Your task to perform on an android device: Add asus zenbook to the cart on ebay Image 0: 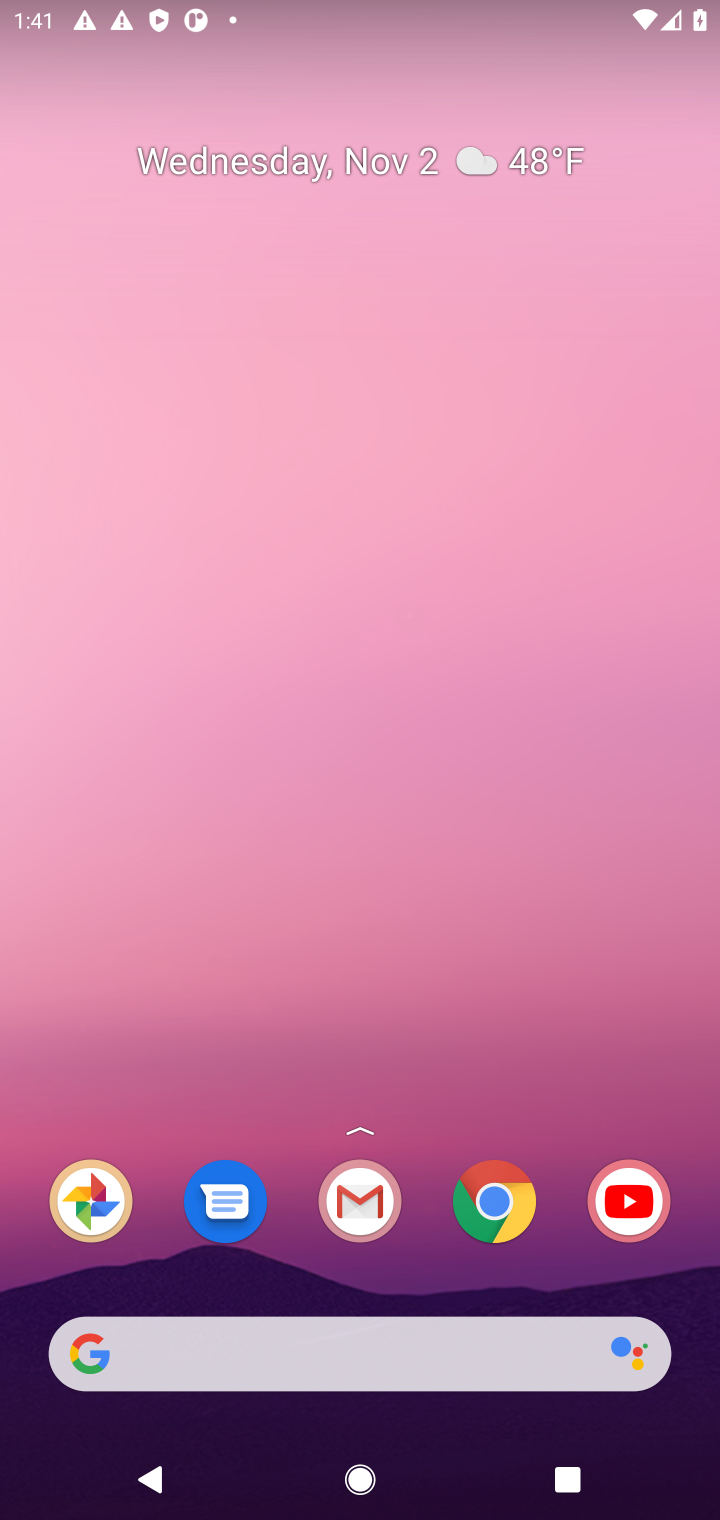
Step 0: click (491, 1215)
Your task to perform on an android device: Add asus zenbook to the cart on ebay Image 1: 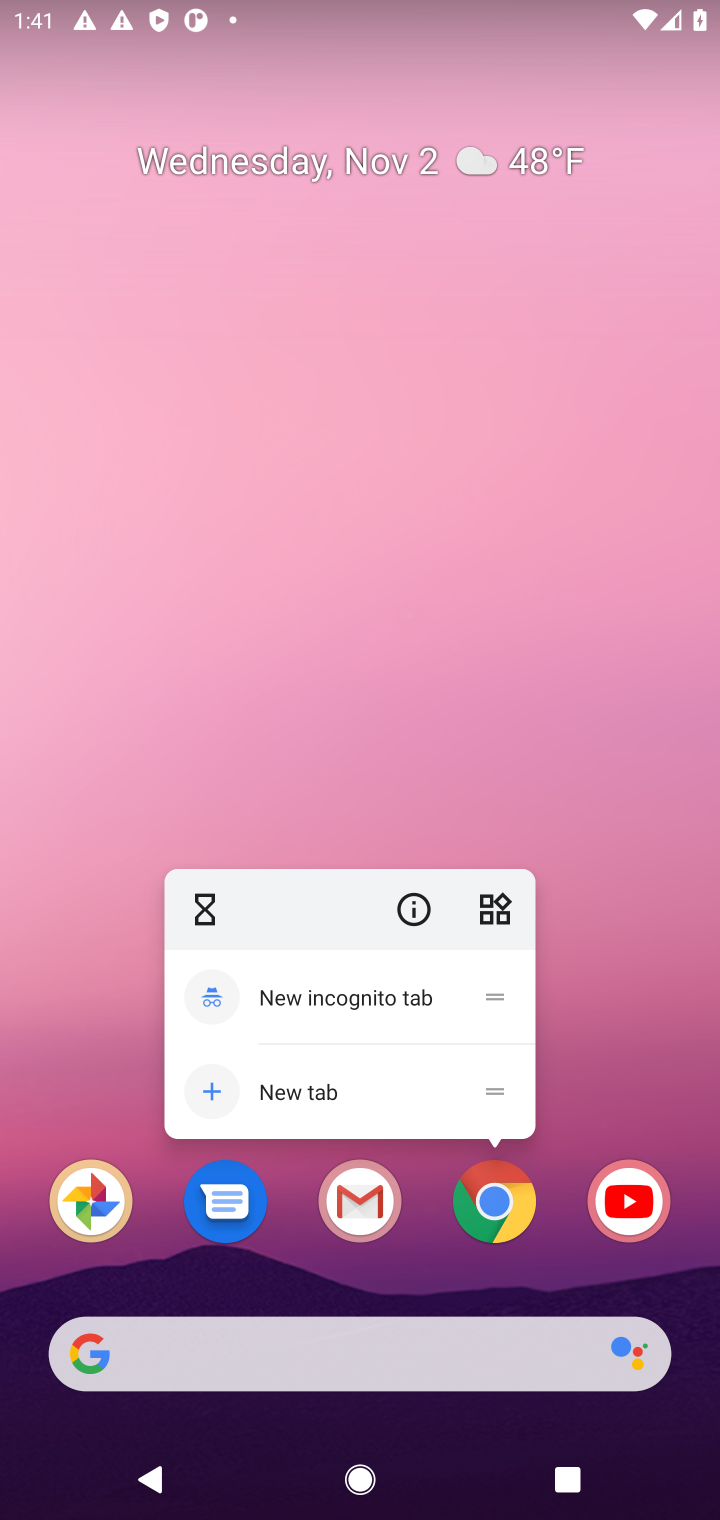
Step 1: click (491, 1215)
Your task to perform on an android device: Add asus zenbook to the cart on ebay Image 2: 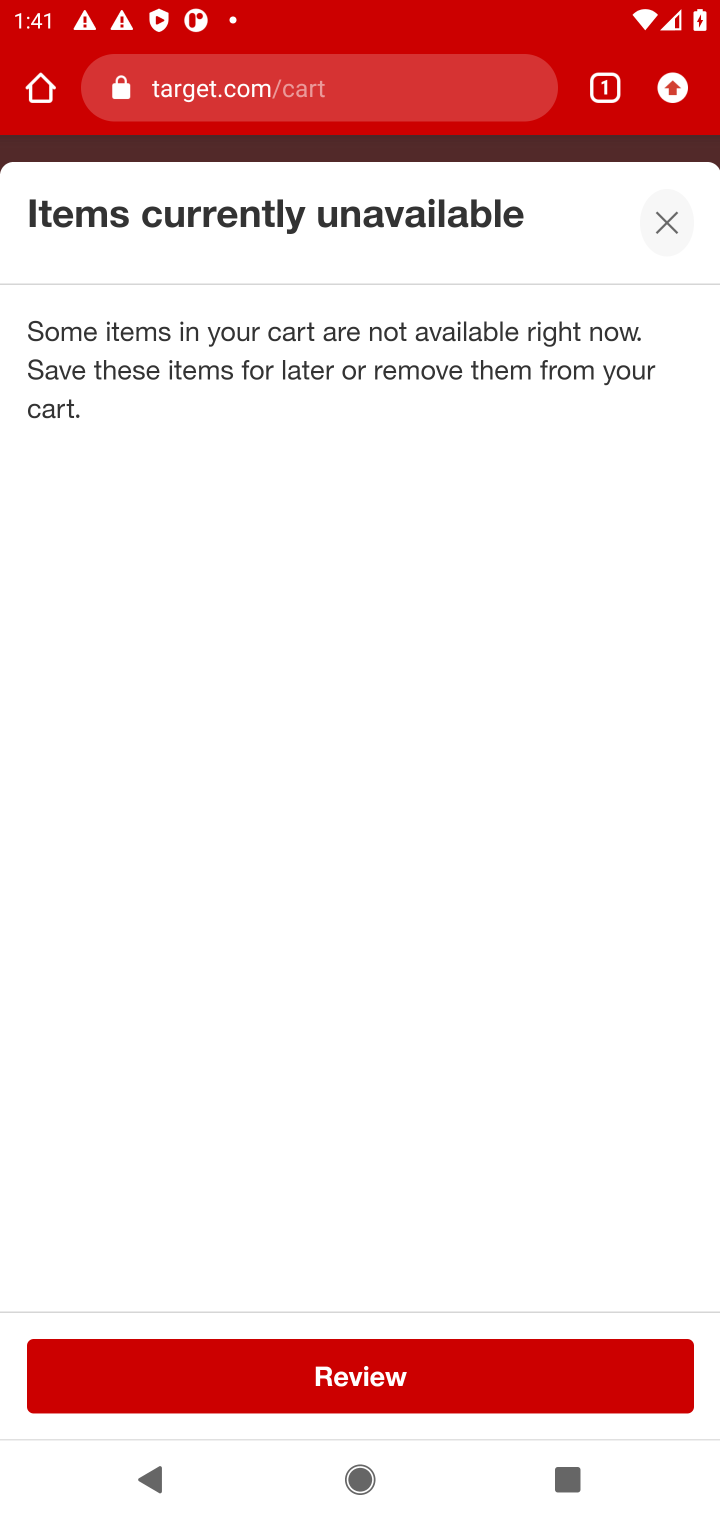
Step 2: click (31, 99)
Your task to perform on an android device: Add asus zenbook to the cart on ebay Image 3: 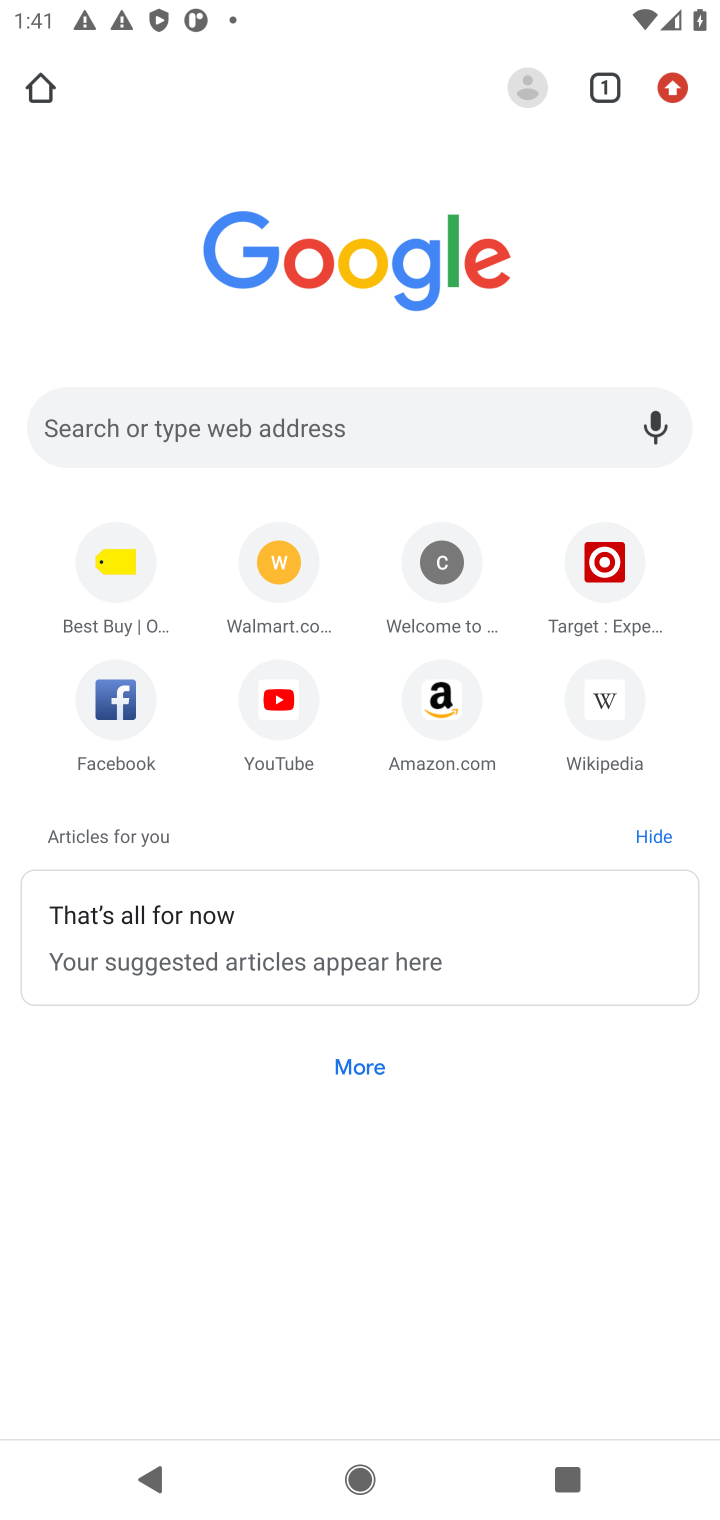
Step 3: click (342, 411)
Your task to perform on an android device: Add asus zenbook to the cart on ebay Image 4: 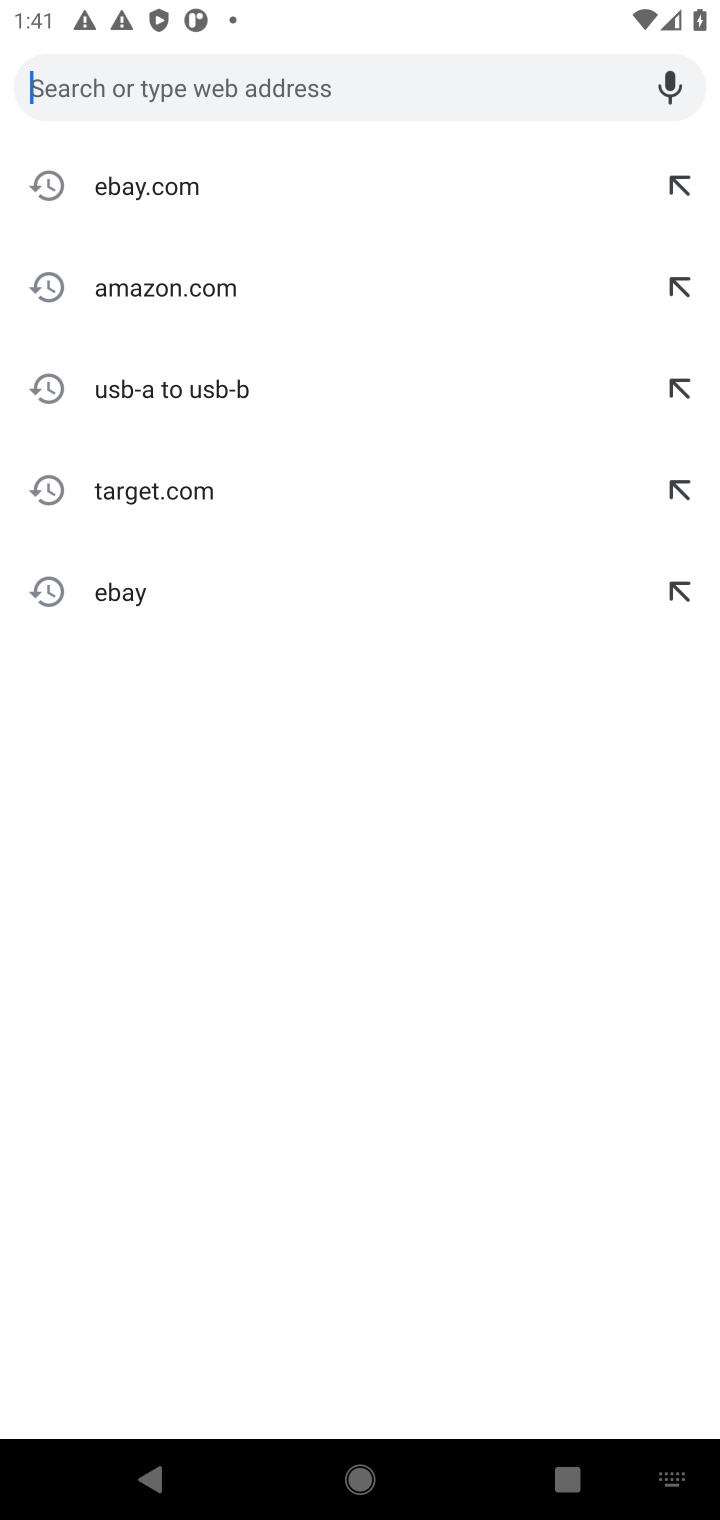
Step 4: click (153, 186)
Your task to perform on an android device: Add asus zenbook to the cart on ebay Image 5: 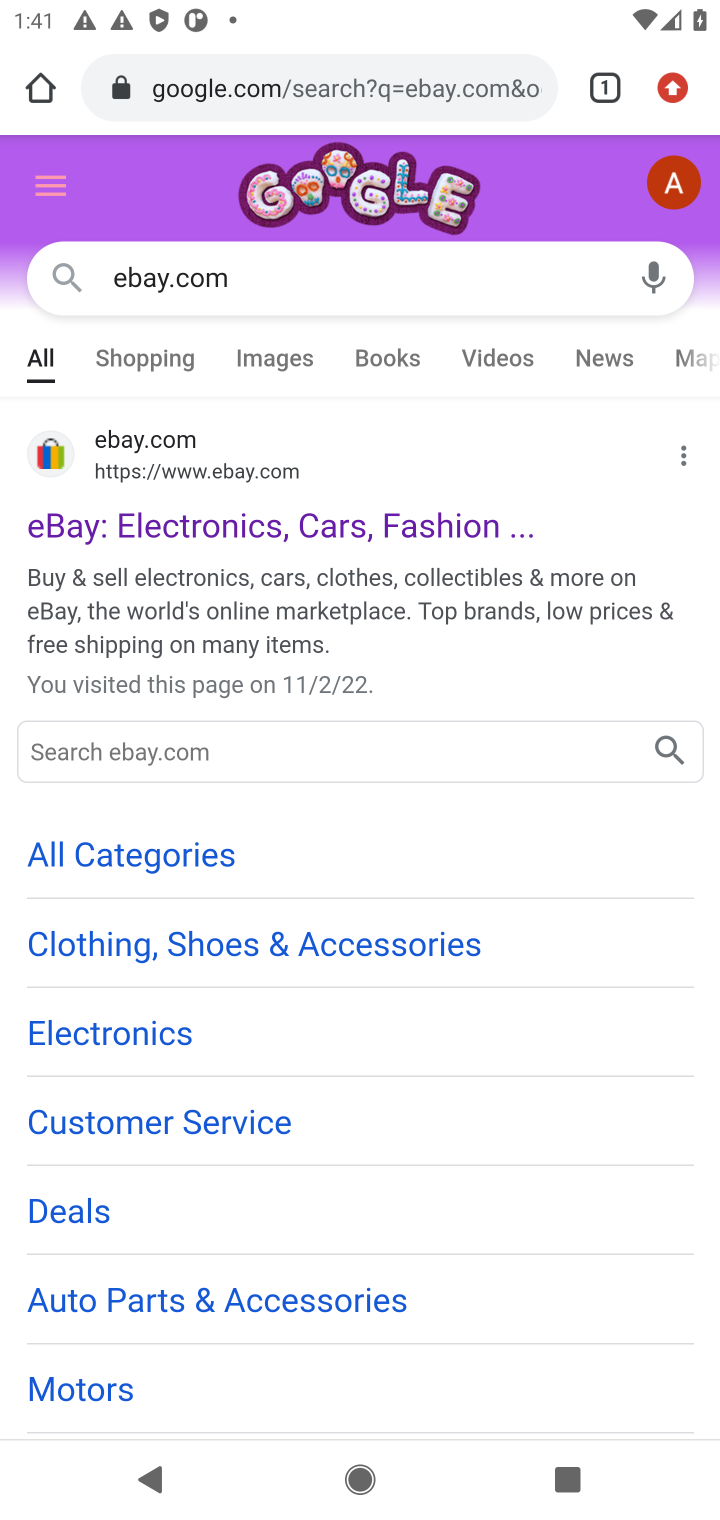
Step 5: click (193, 461)
Your task to perform on an android device: Add asus zenbook to the cart on ebay Image 6: 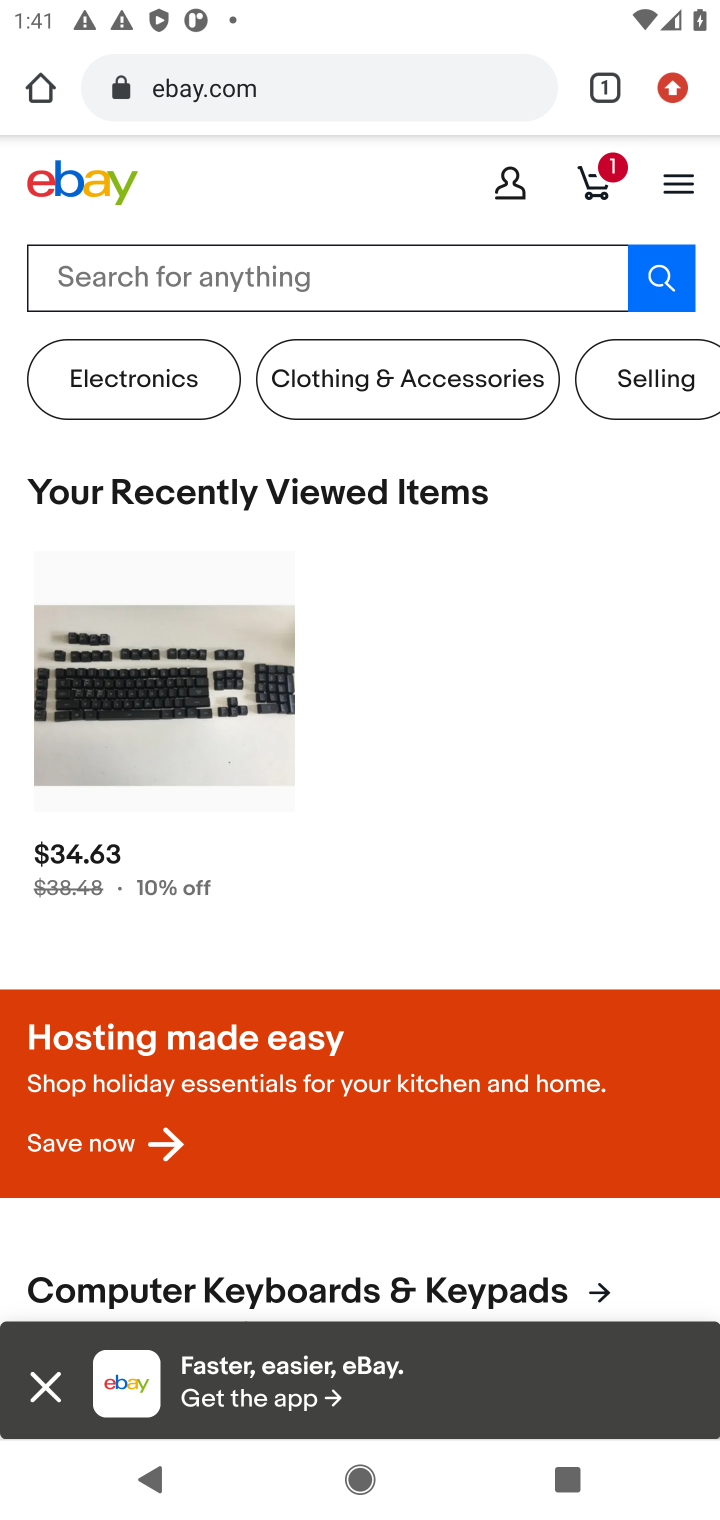
Step 6: click (381, 269)
Your task to perform on an android device: Add asus zenbook to the cart on ebay Image 7: 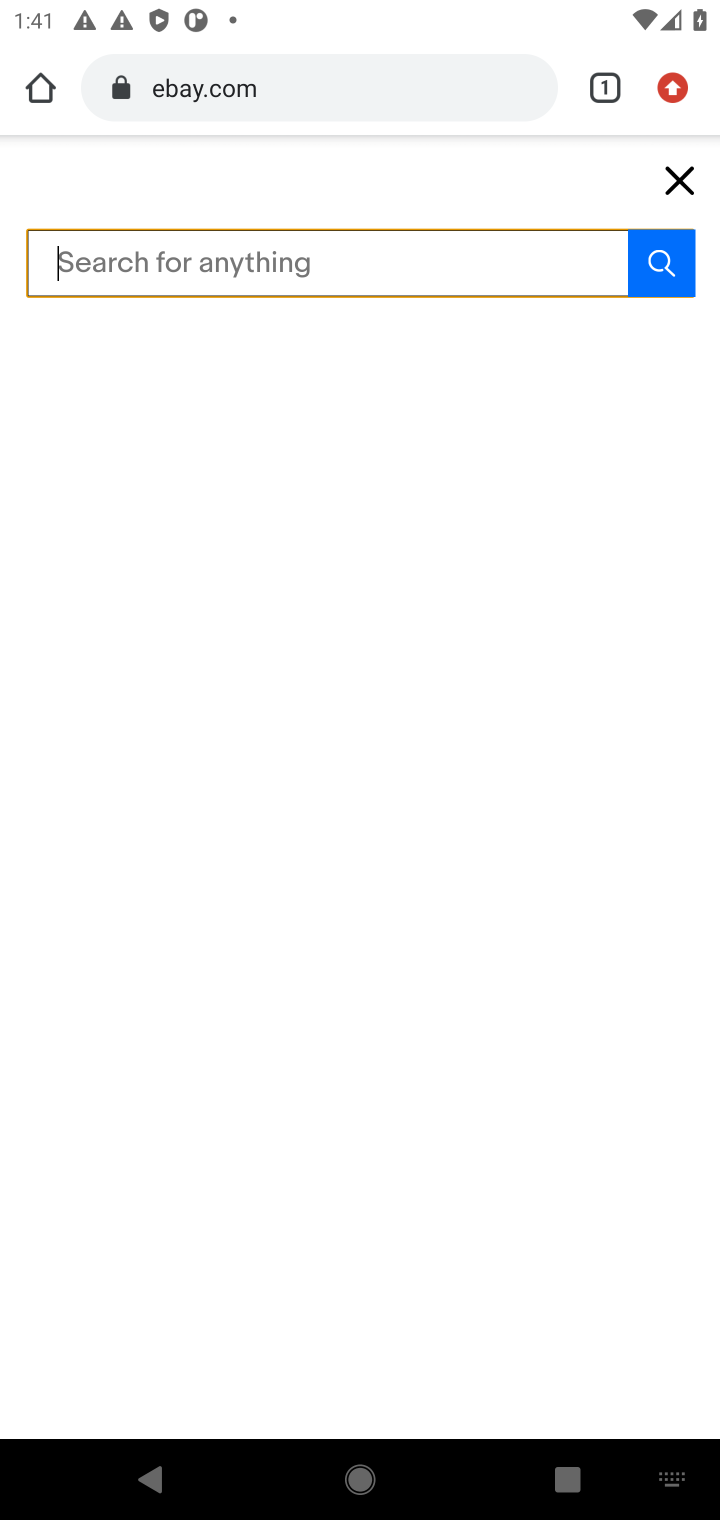
Step 7: type "asus zenbook"
Your task to perform on an android device: Add asus zenbook to the cart on ebay Image 8: 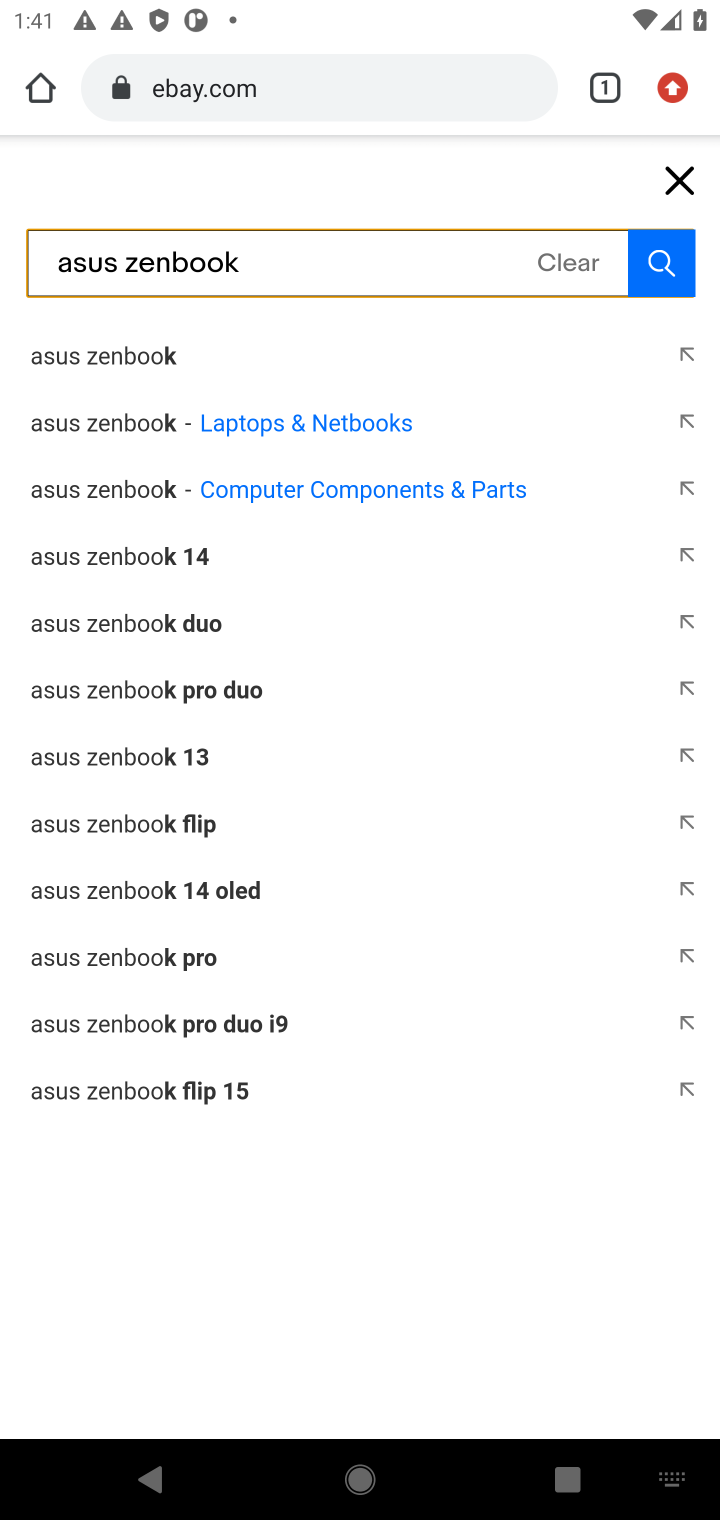
Step 8: click (100, 361)
Your task to perform on an android device: Add asus zenbook to the cart on ebay Image 9: 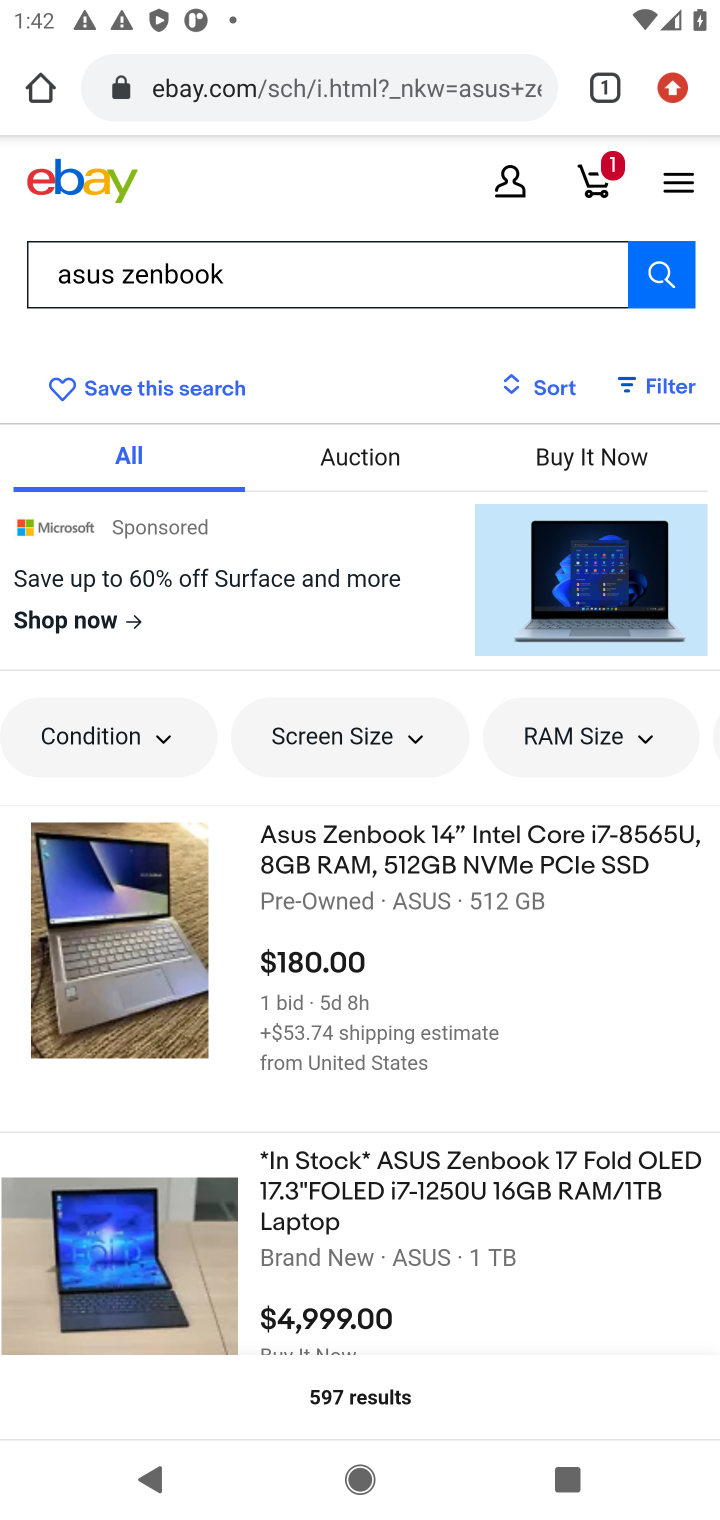
Step 9: click (153, 925)
Your task to perform on an android device: Add asus zenbook to the cart on ebay Image 10: 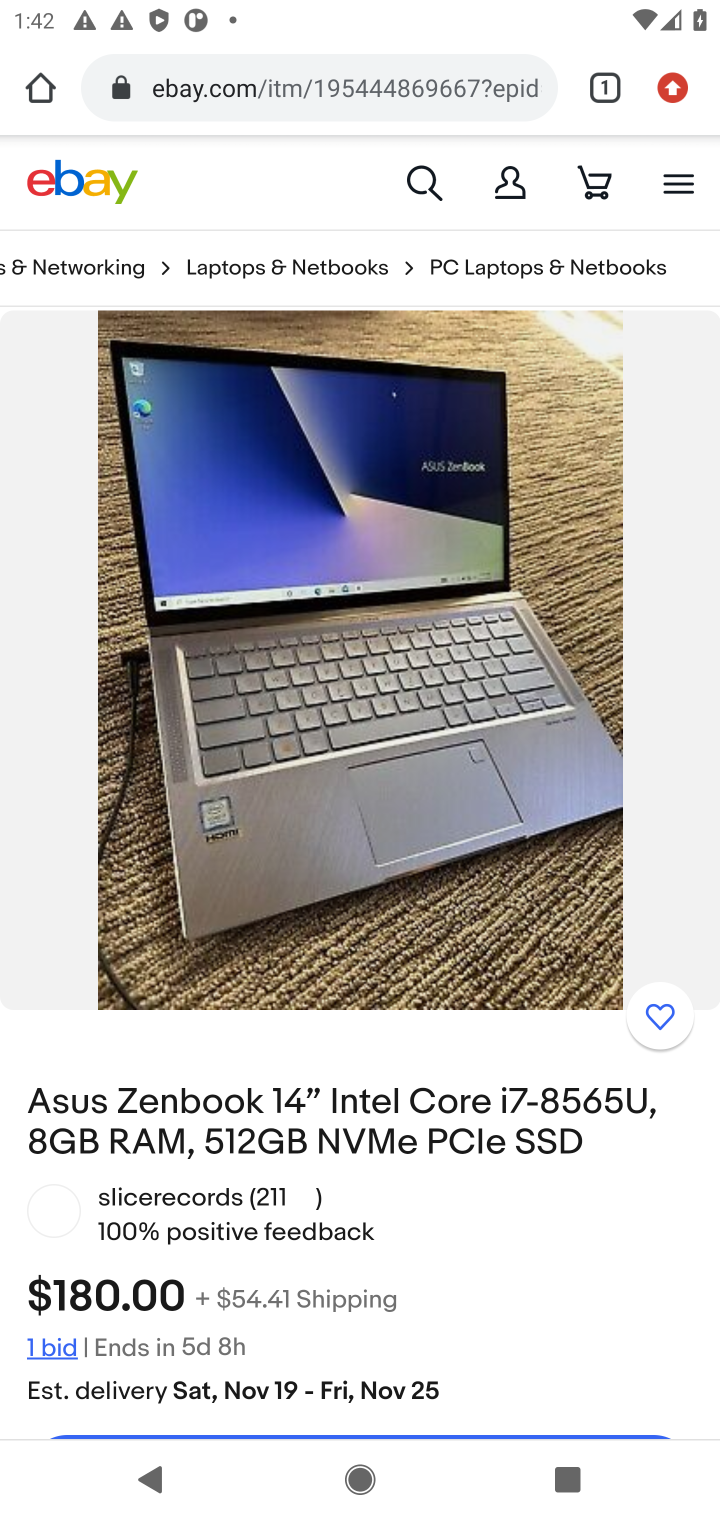
Step 10: drag from (516, 1096) to (533, 630)
Your task to perform on an android device: Add asus zenbook to the cart on ebay Image 11: 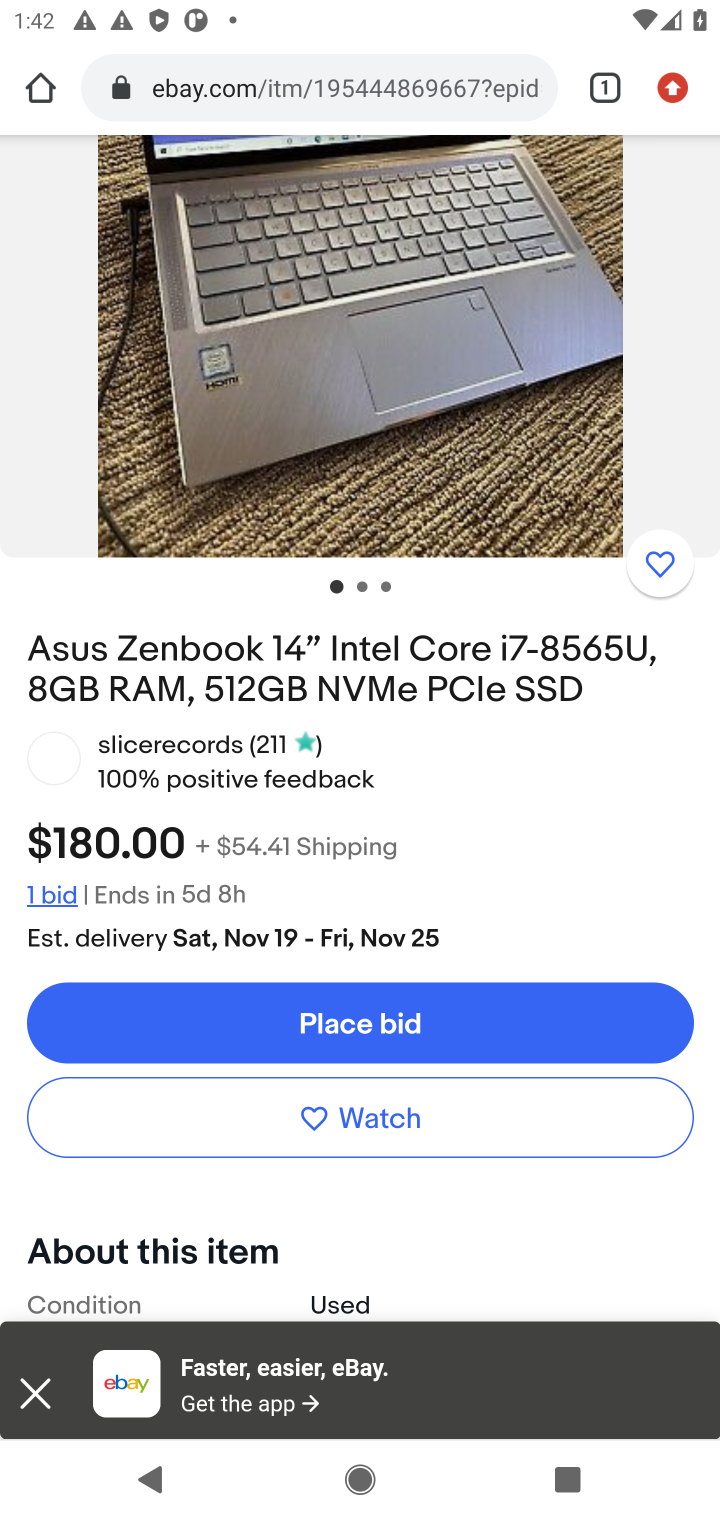
Step 11: press back button
Your task to perform on an android device: Add asus zenbook to the cart on ebay Image 12: 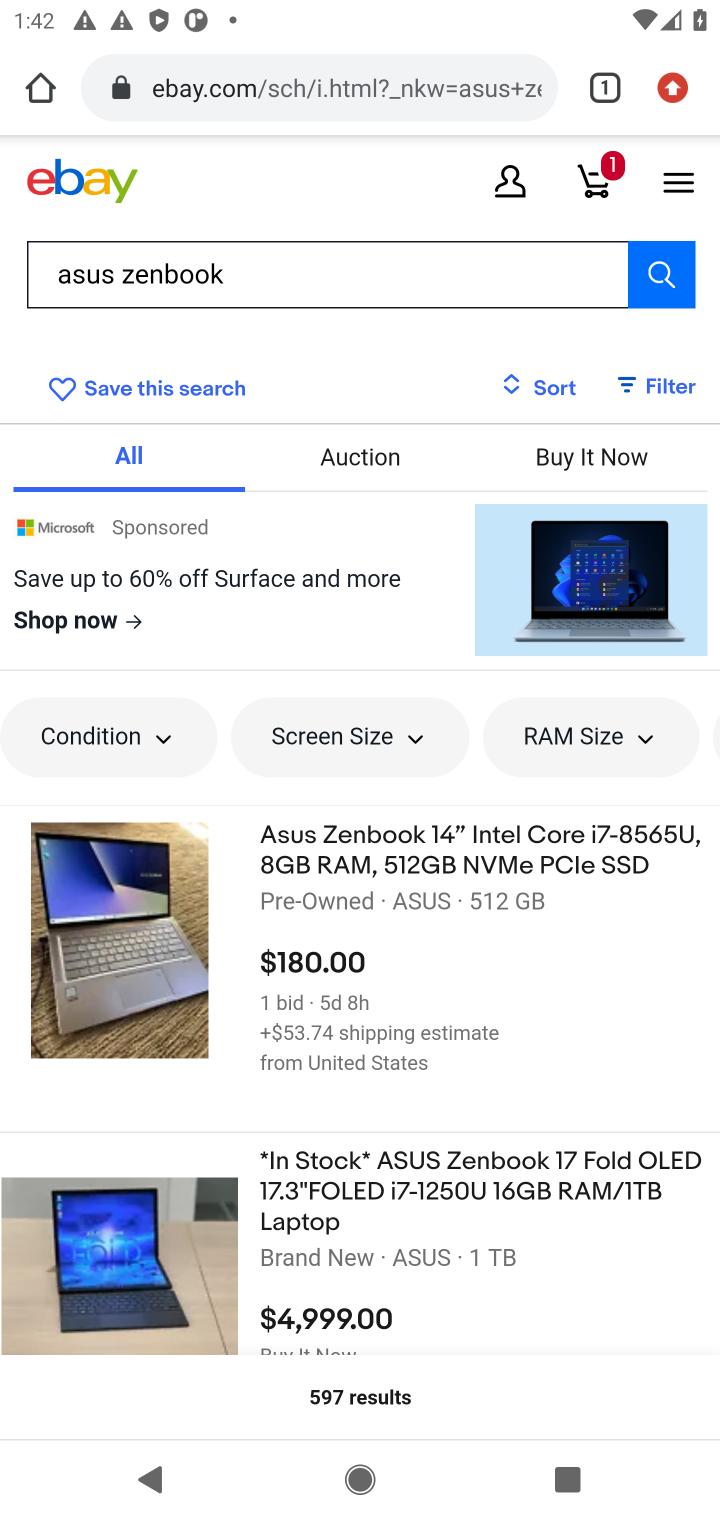
Step 12: click (155, 1232)
Your task to perform on an android device: Add asus zenbook to the cart on ebay Image 13: 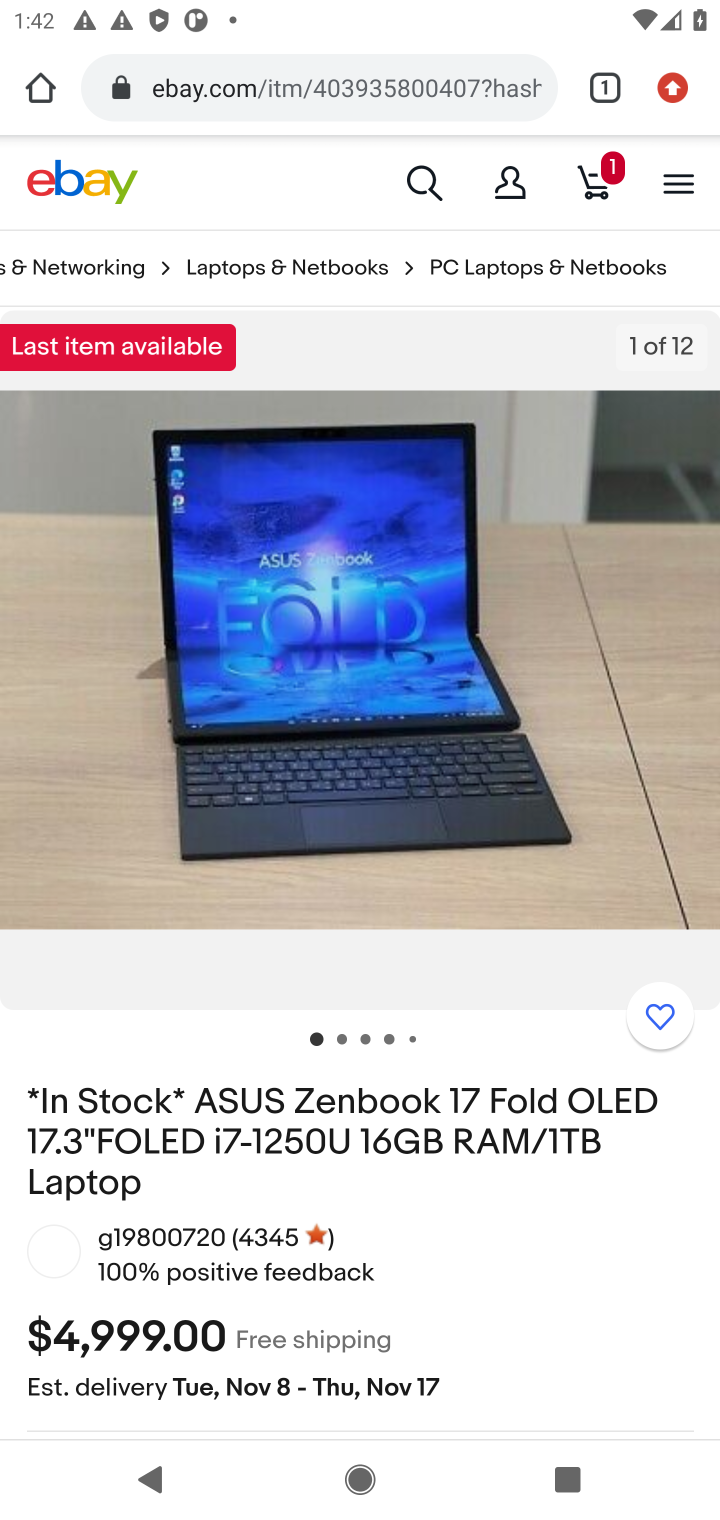
Step 13: drag from (497, 1203) to (463, 506)
Your task to perform on an android device: Add asus zenbook to the cart on ebay Image 14: 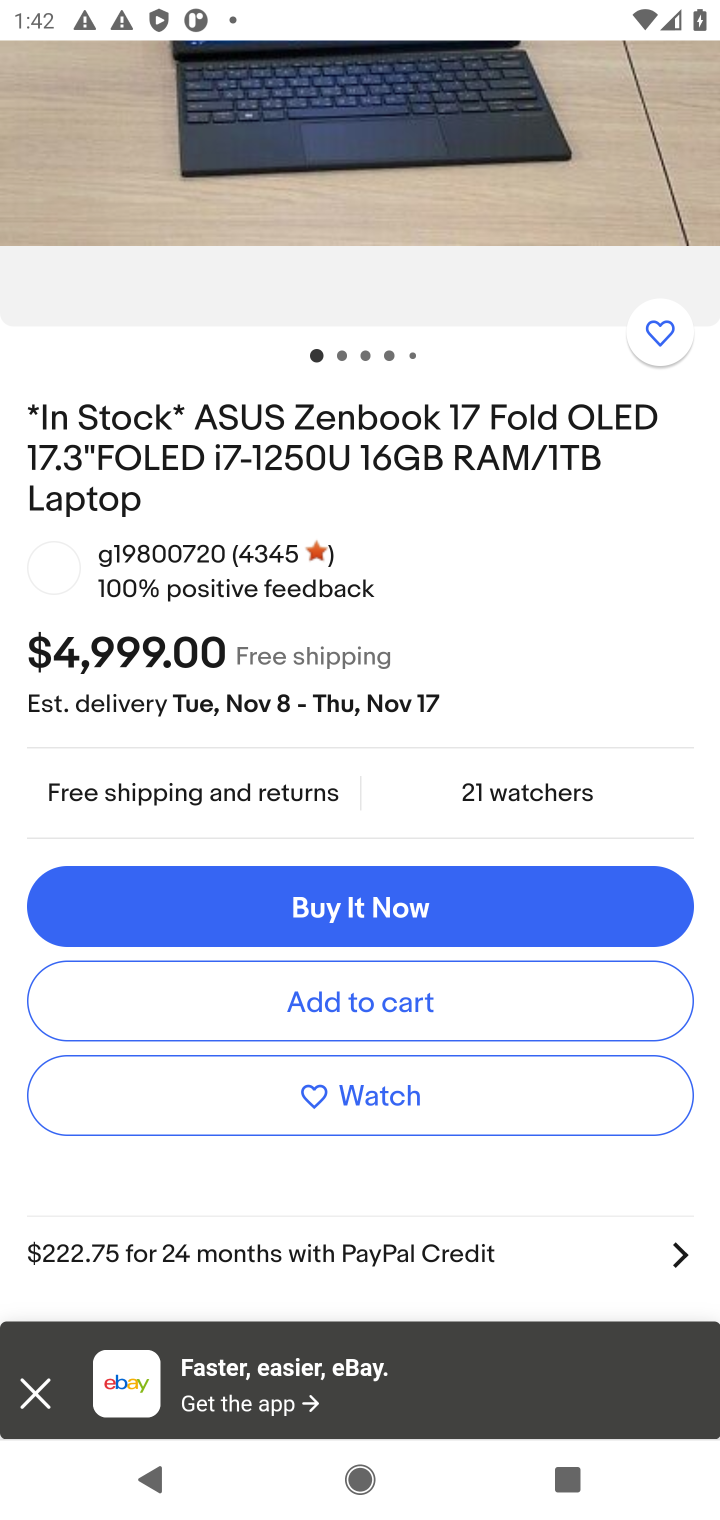
Step 14: click (411, 1004)
Your task to perform on an android device: Add asus zenbook to the cart on ebay Image 15: 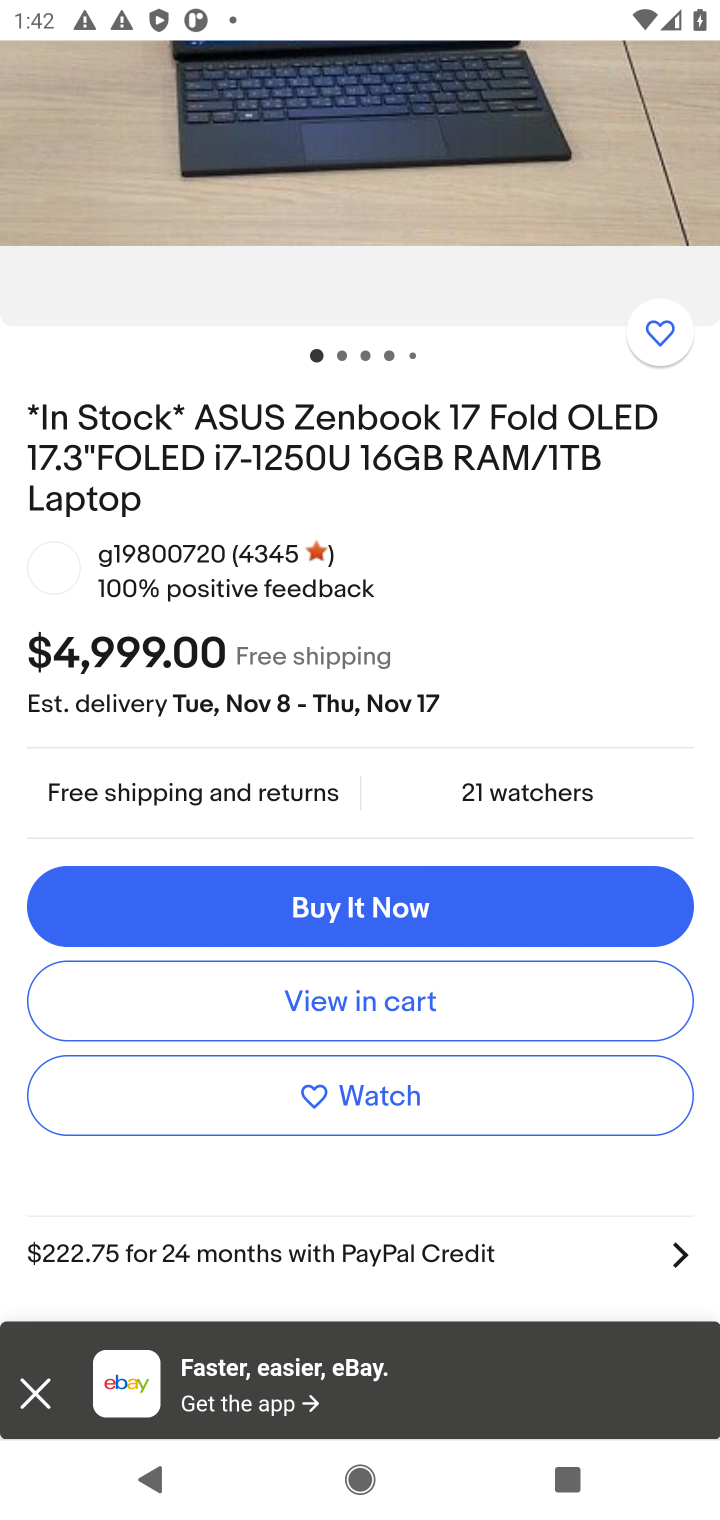
Step 15: click (388, 987)
Your task to perform on an android device: Add asus zenbook to the cart on ebay Image 16: 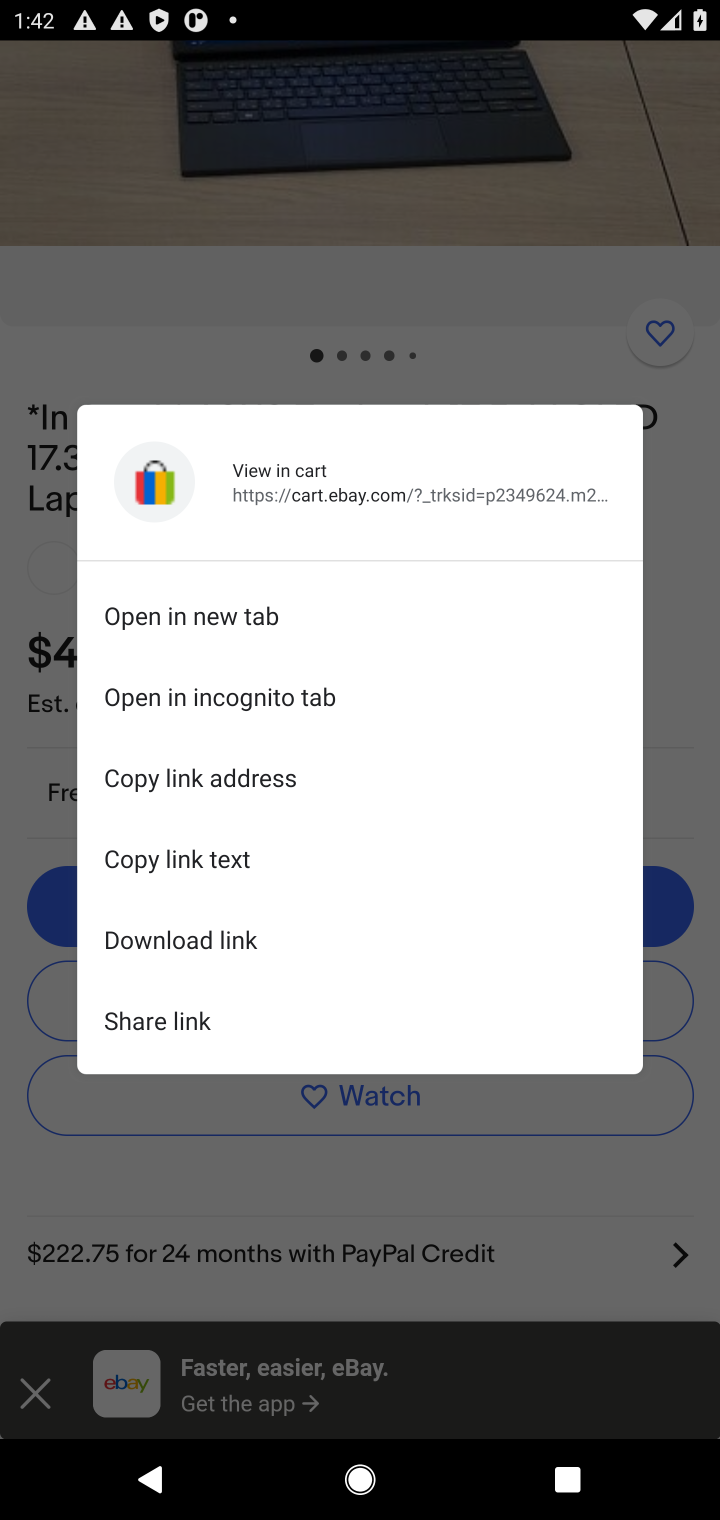
Step 16: click (664, 1170)
Your task to perform on an android device: Add asus zenbook to the cart on ebay Image 17: 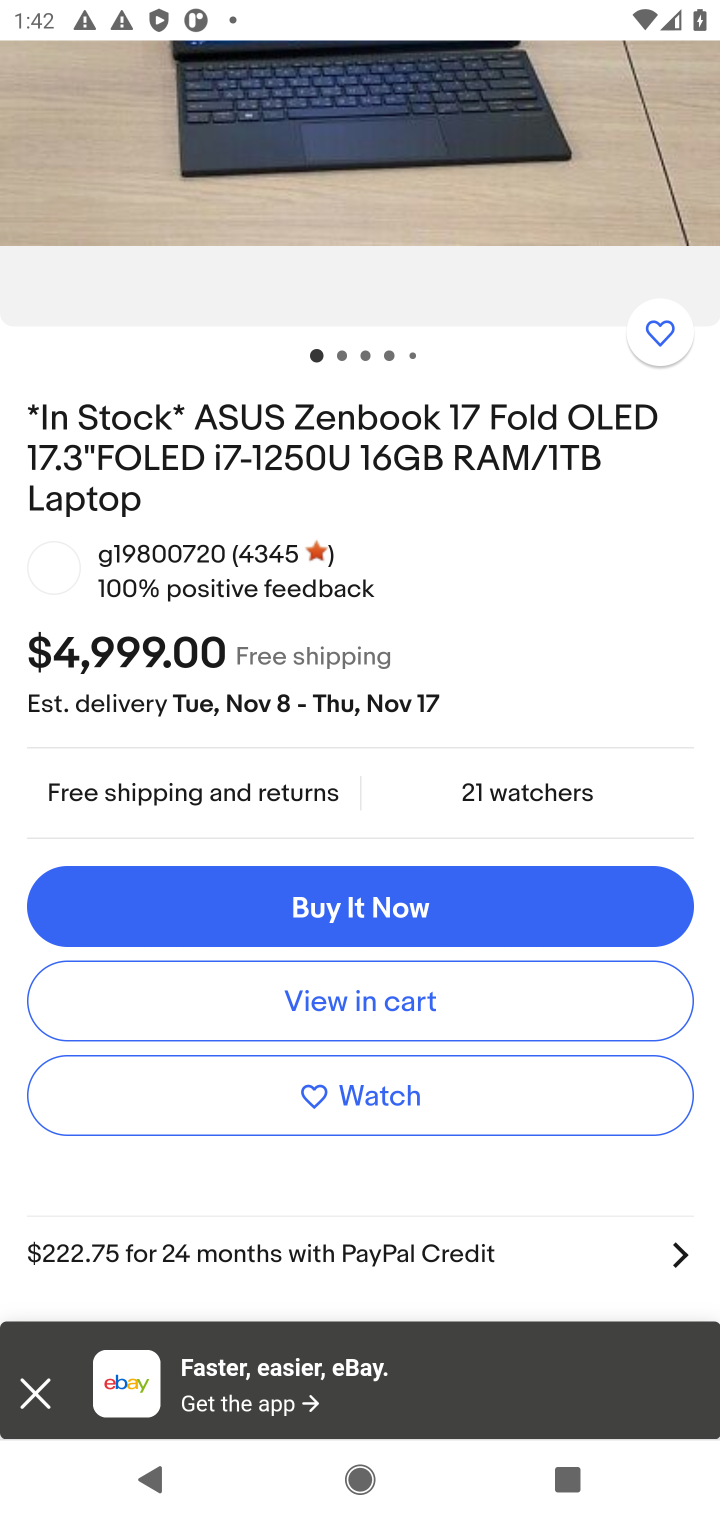
Step 17: click (300, 992)
Your task to perform on an android device: Add asus zenbook to the cart on ebay Image 18: 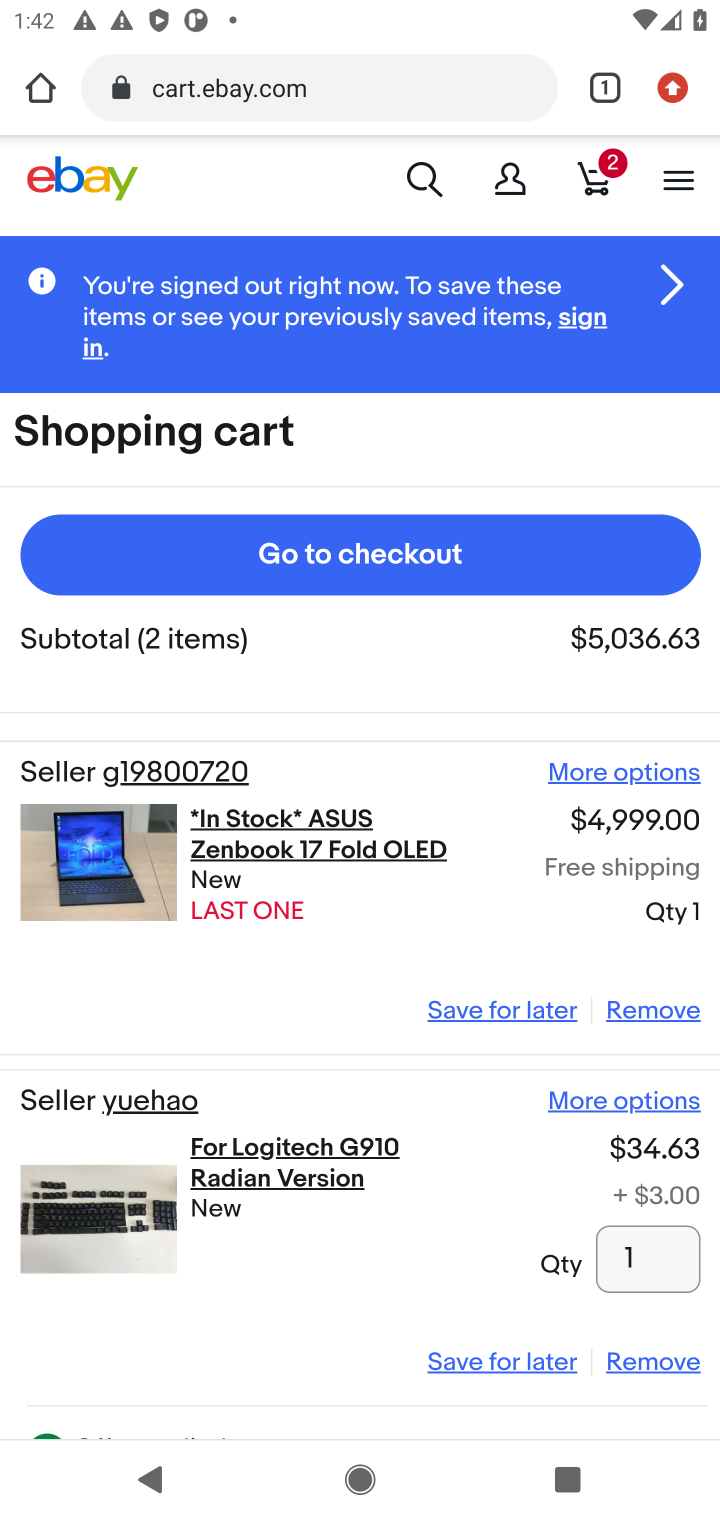
Step 18: click (415, 556)
Your task to perform on an android device: Add asus zenbook to the cart on ebay Image 19: 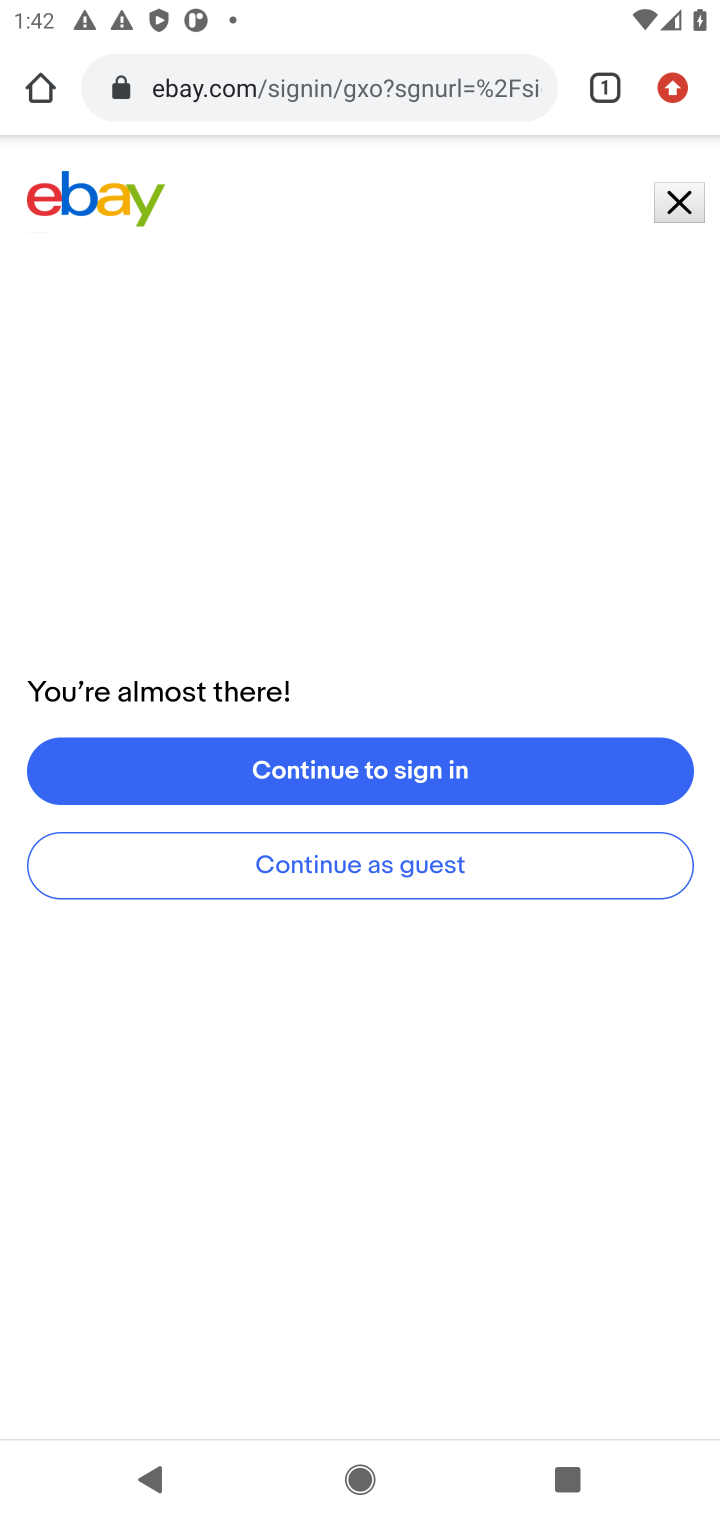
Step 19: task complete